Your task to perform on an android device: turn pop-ups on in chrome Image 0: 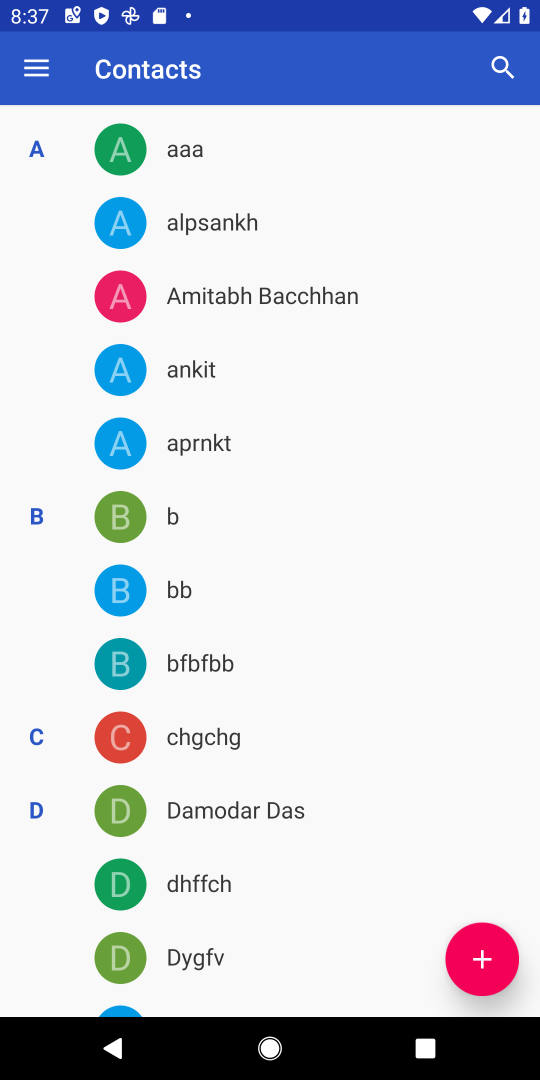
Step 0: press home button
Your task to perform on an android device: turn pop-ups on in chrome Image 1: 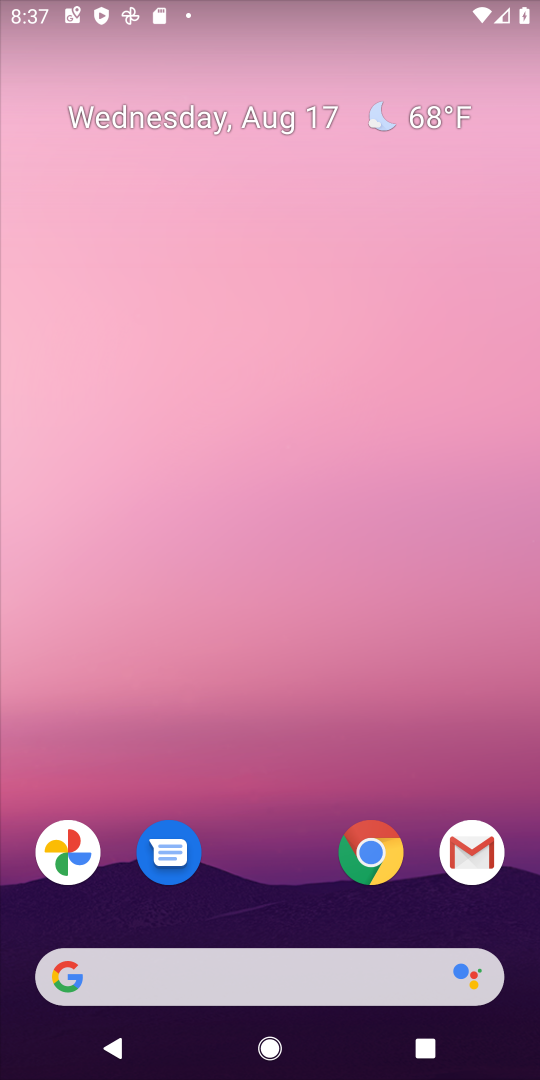
Step 1: click (375, 856)
Your task to perform on an android device: turn pop-ups on in chrome Image 2: 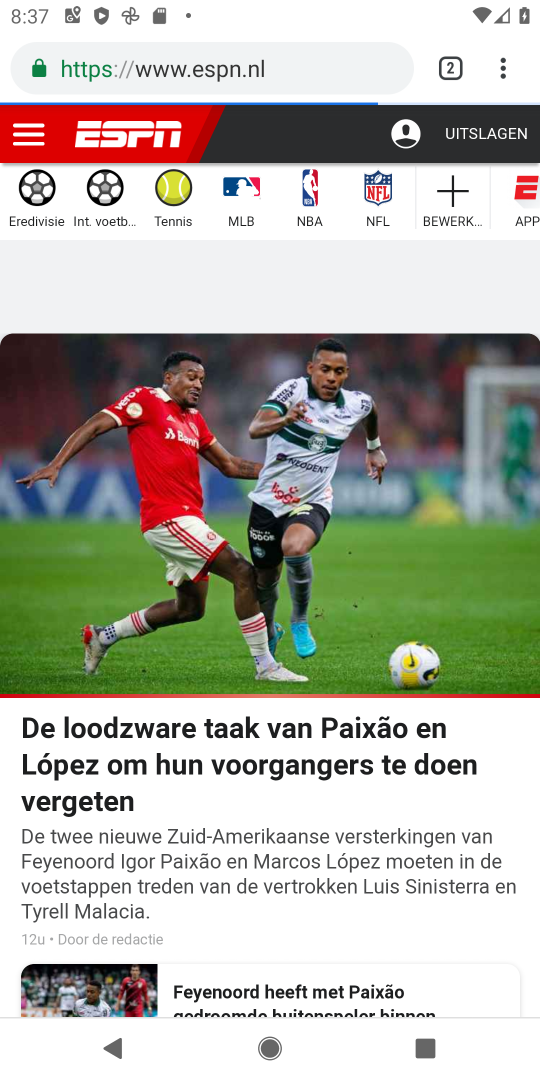
Step 2: click (503, 68)
Your task to perform on an android device: turn pop-ups on in chrome Image 3: 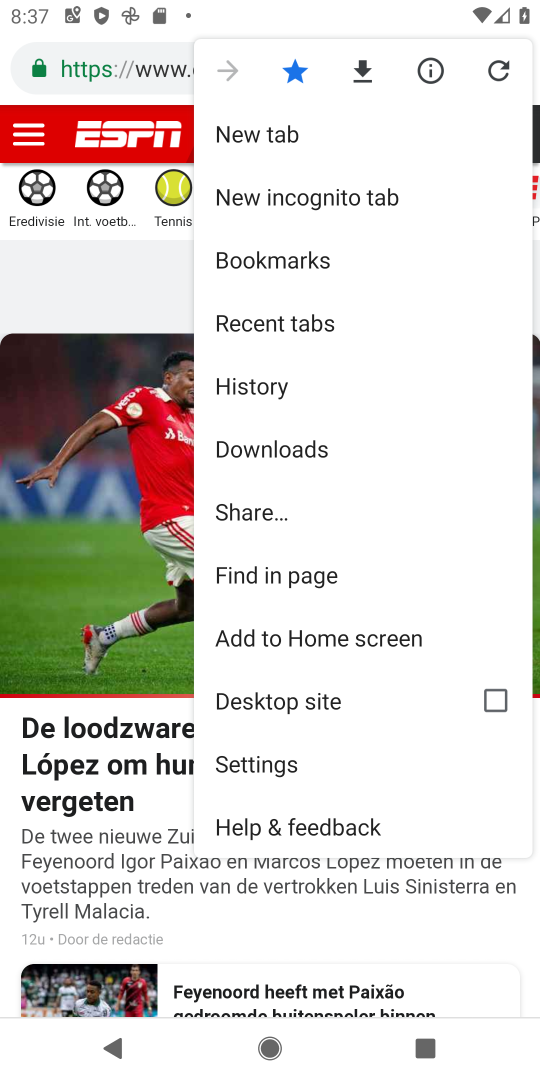
Step 3: click (258, 766)
Your task to perform on an android device: turn pop-ups on in chrome Image 4: 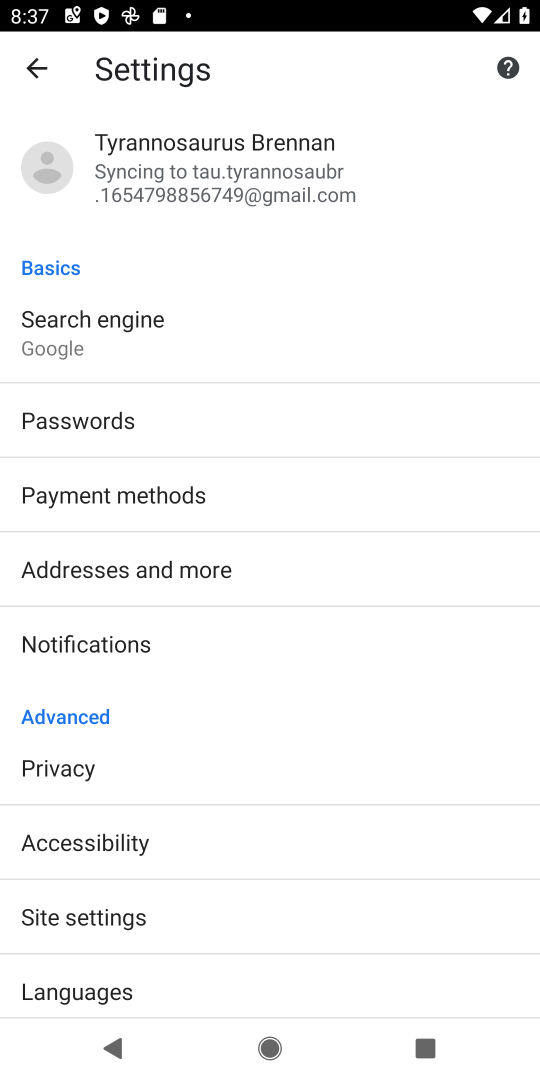
Step 4: click (88, 910)
Your task to perform on an android device: turn pop-ups on in chrome Image 5: 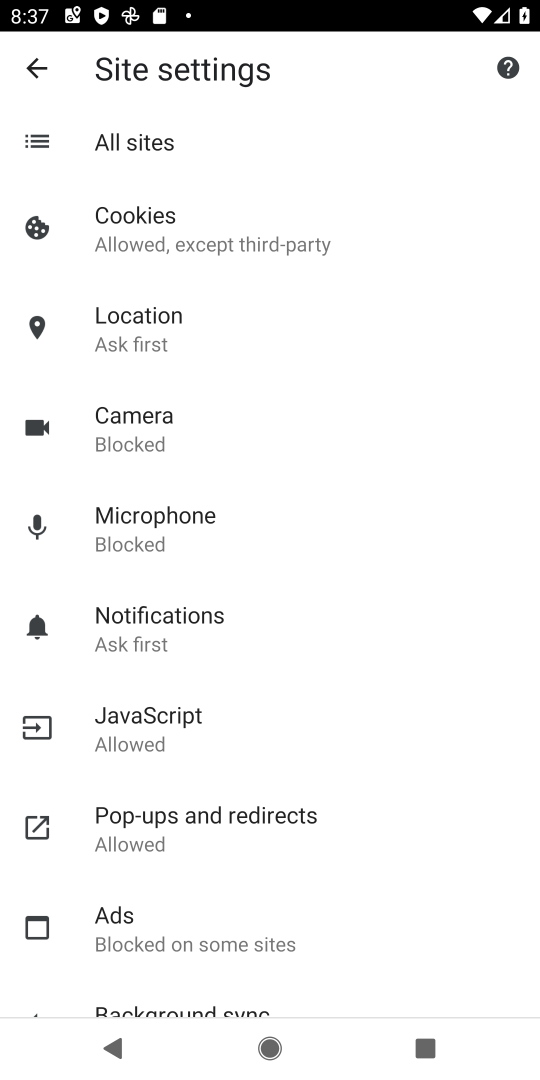
Step 5: click (201, 817)
Your task to perform on an android device: turn pop-ups on in chrome Image 6: 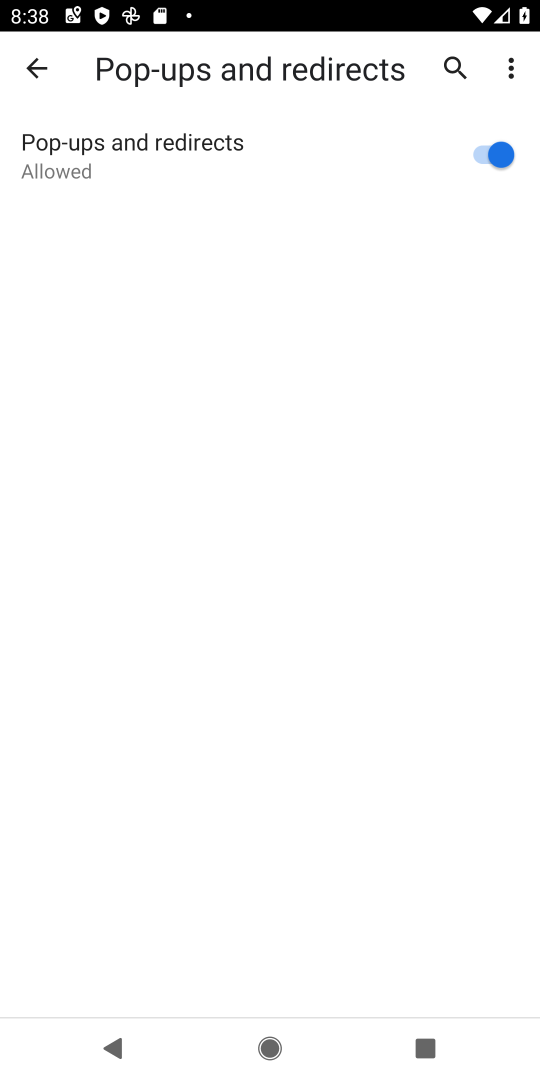
Step 6: task complete